Your task to perform on an android device: change notifications settings Image 0: 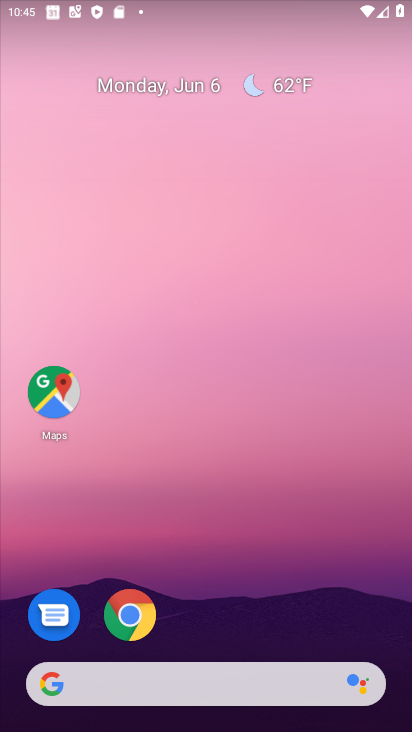
Step 0: drag from (245, 669) to (140, 109)
Your task to perform on an android device: change notifications settings Image 1: 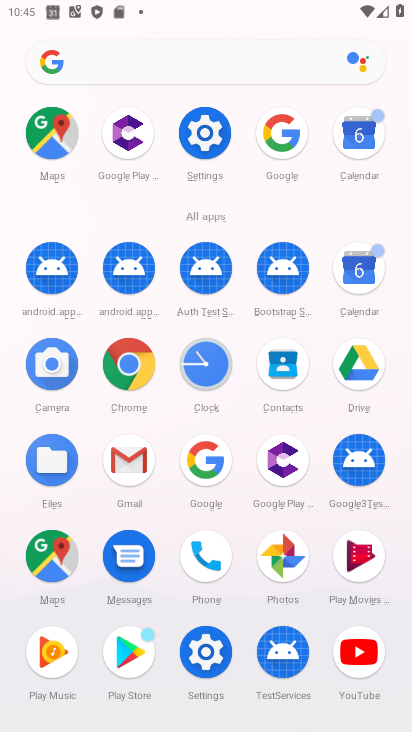
Step 1: click (198, 137)
Your task to perform on an android device: change notifications settings Image 2: 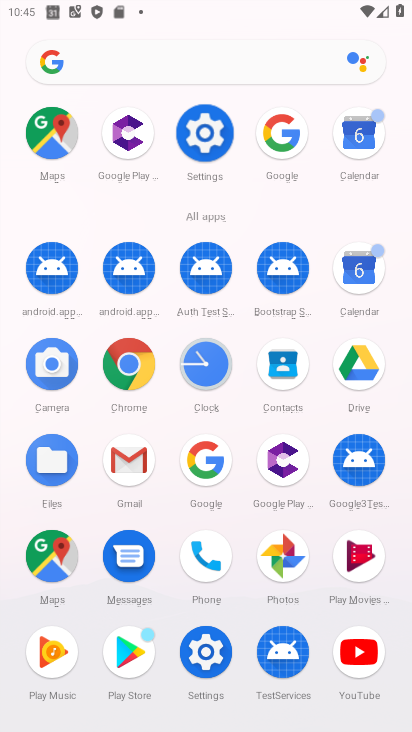
Step 2: click (200, 136)
Your task to perform on an android device: change notifications settings Image 3: 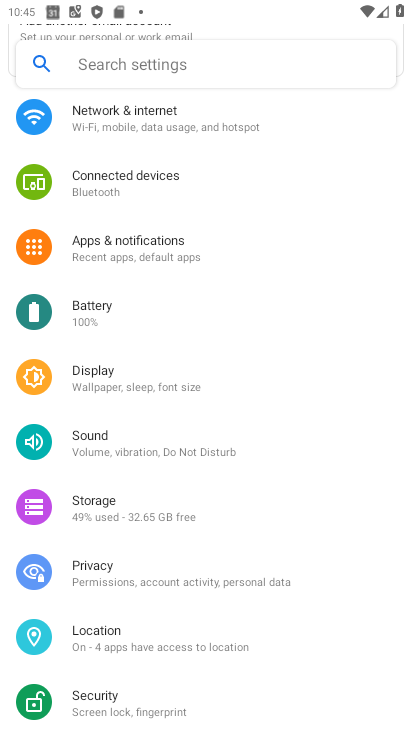
Step 3: click (173, 257)
Your task to perform on an android device: change notifications settings Image 4: 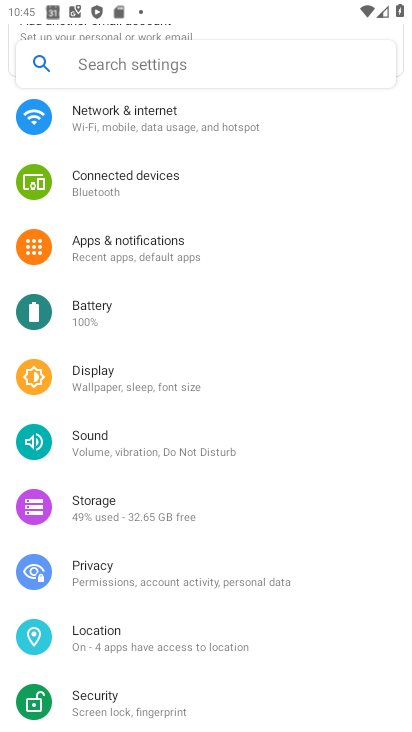
Step 4: click (173, 257)
Your task to perform on an android device: change notifications settings Image 5: 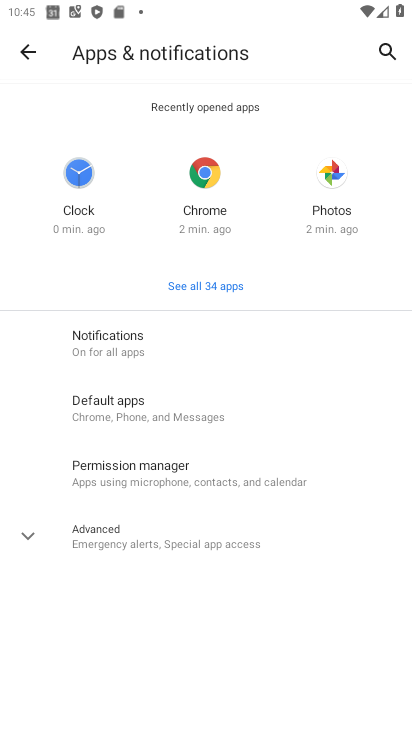
Step 5: click (102, 353)
Your task to perform on an android device: change notifications settings Image 6: 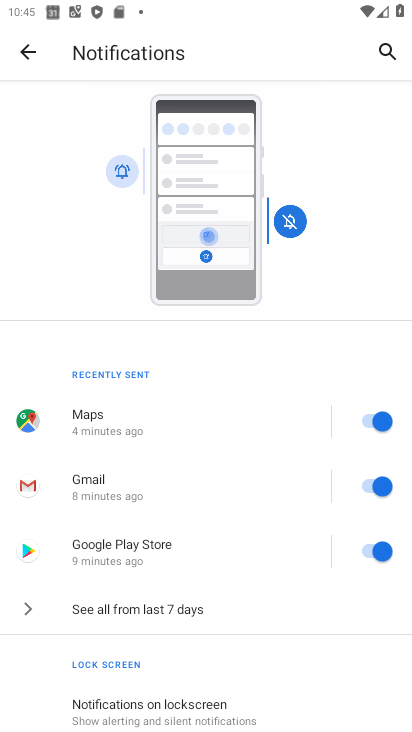
Step 6: click (139, 343)
Your task to perform on an android device: change notifications settings Image 7: 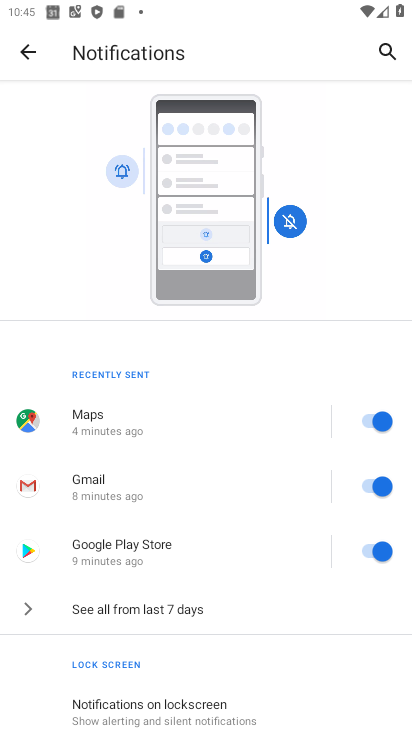
Step 7: click (139, 343)
Your task to perform on an android device: change notifications settings Image 8: 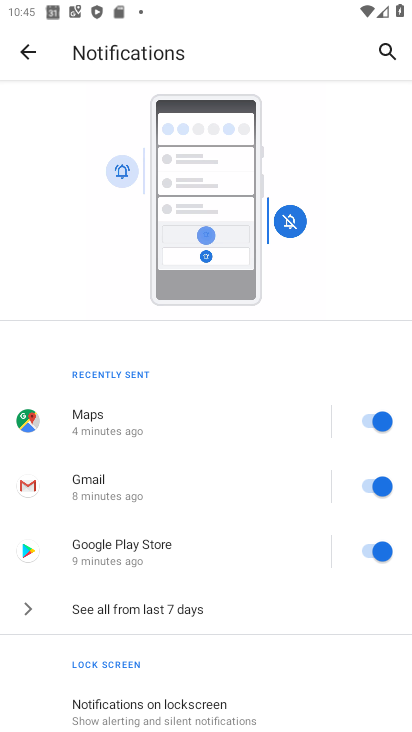
Step 8: click (378, 415)
Your task to perform on an android device: change notifications settings Image 9: 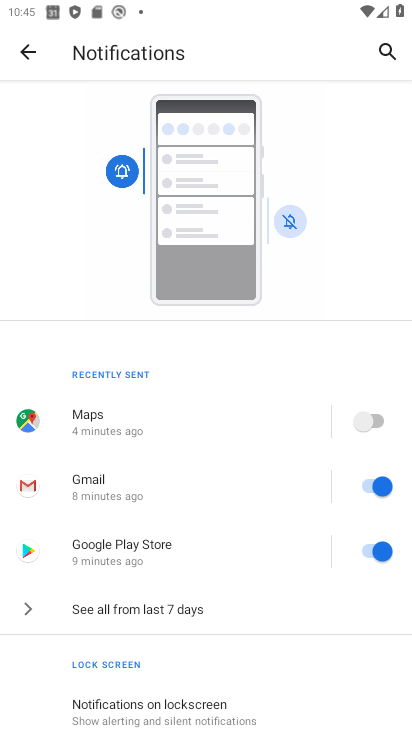
Step 9: click (375, 480)
Your task to perform on an android device: change notifications settings Image 10: 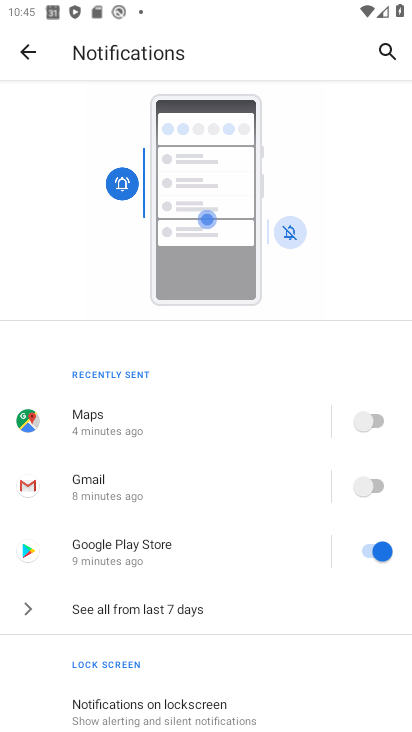
Step 10: click (380, 547)
Your task to perform on an android device: change notifications settings Image 11: 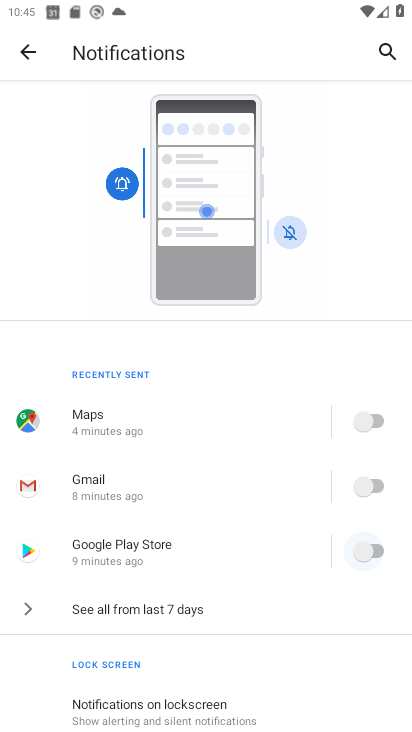
Step 11: click (384, 556)
Your task to perform on an android device: change notifications settings Image 12: 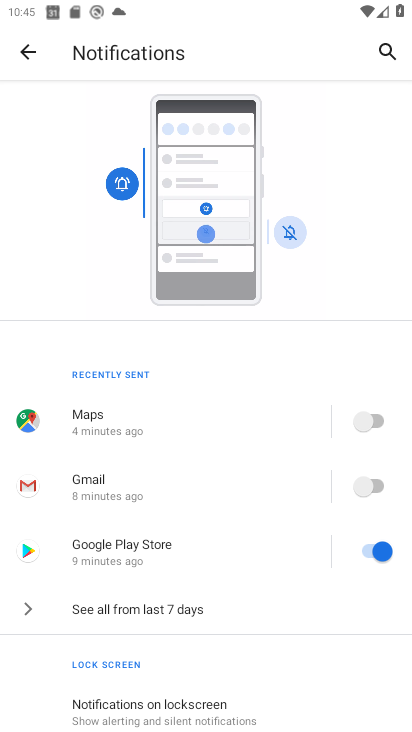
Step 12: task complete